Your task to perform on an android device: Go to Google Image 0: 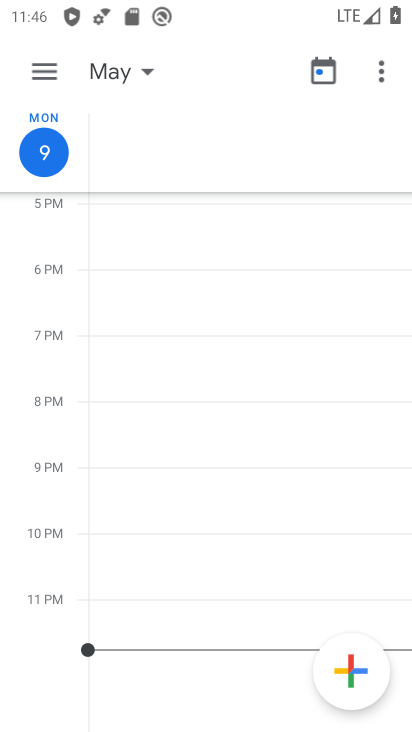
Step 0: drag from (180, 653) to (296, 264)
Your task to perform on an android device: Go to Google Image 1: 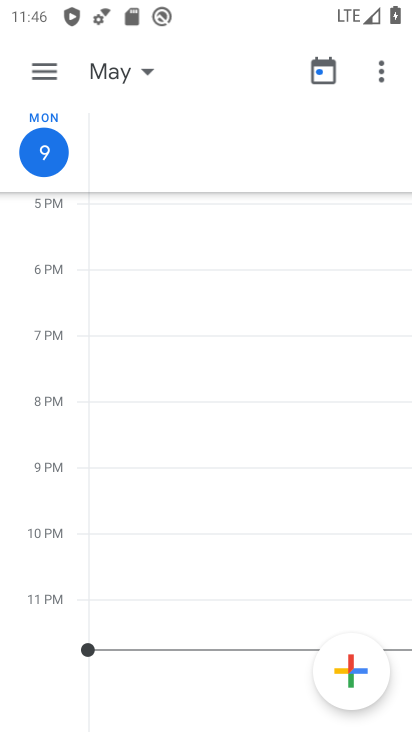
Step 1: press home button
Your task to perform on an android device: Go to Google Image 2: 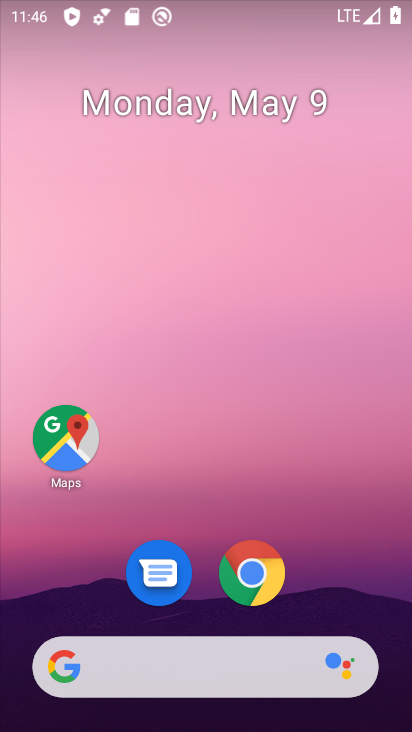
Step 2: drag from (198, 615) to (251, 221)
Your task to perform on an android device: Go to Google Image 3: 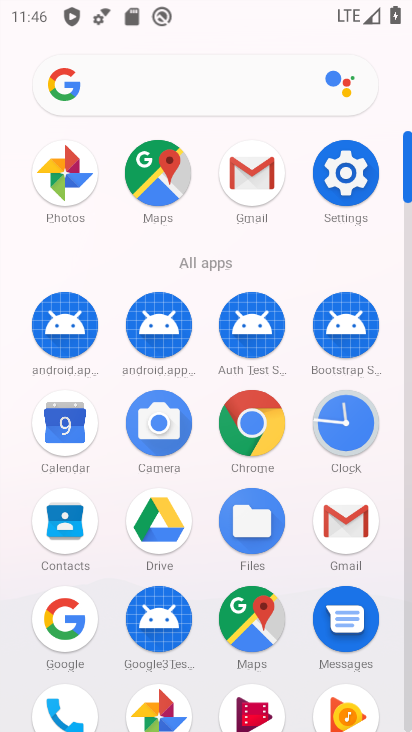
Step 3: click (75, 623)
Your task to perform on an android device: Go to Google Image 4: 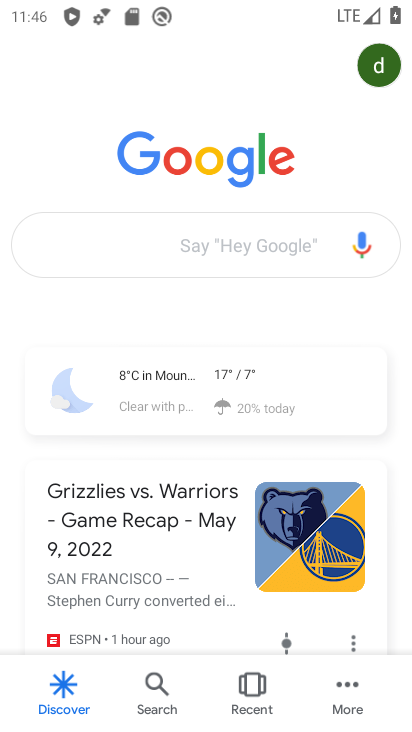
Step 4: task complete